Your task to perform on an android device: Search for the best rated mattress topper on Target. Image 0: 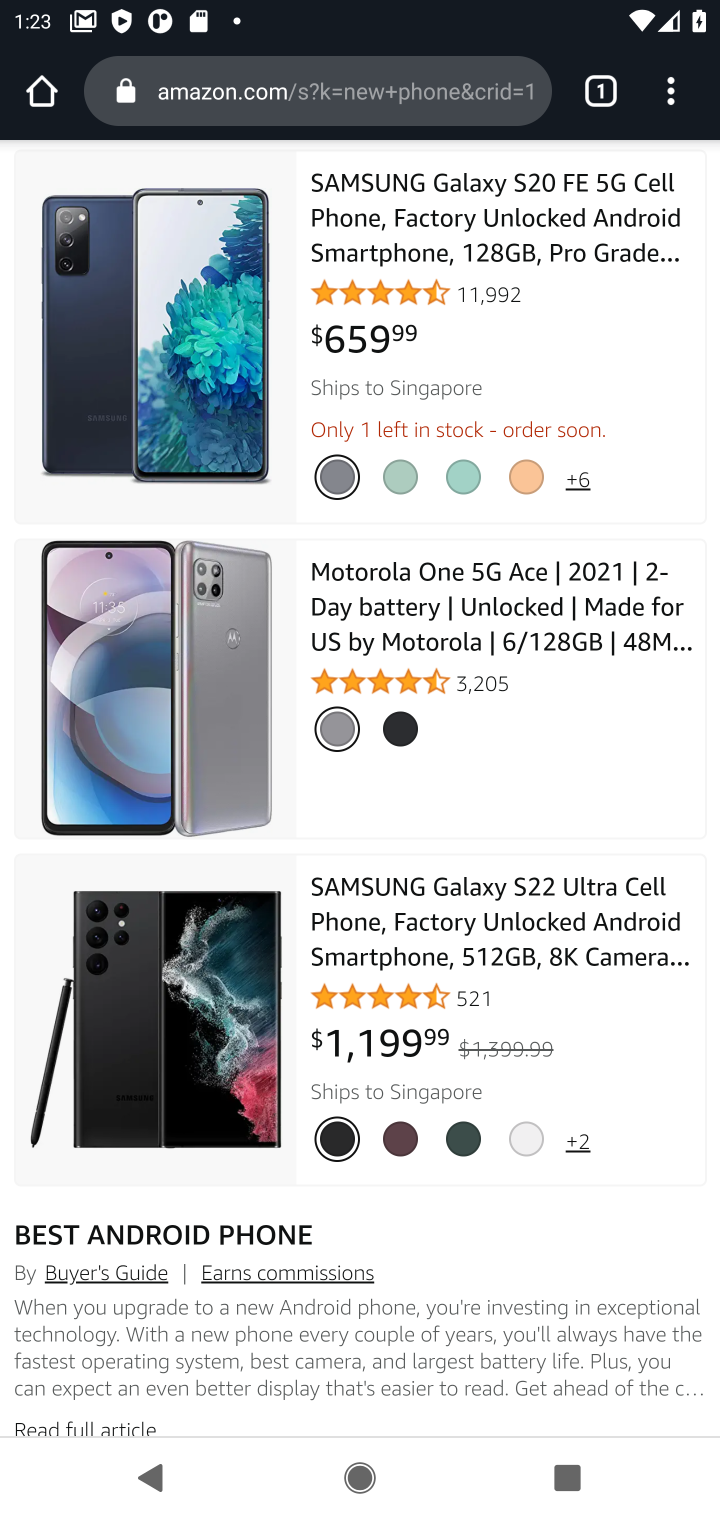
Step 0: click (371, 104)
Your task to perform on an android device: Search for the best rated mattress topper on Target. Image 1: 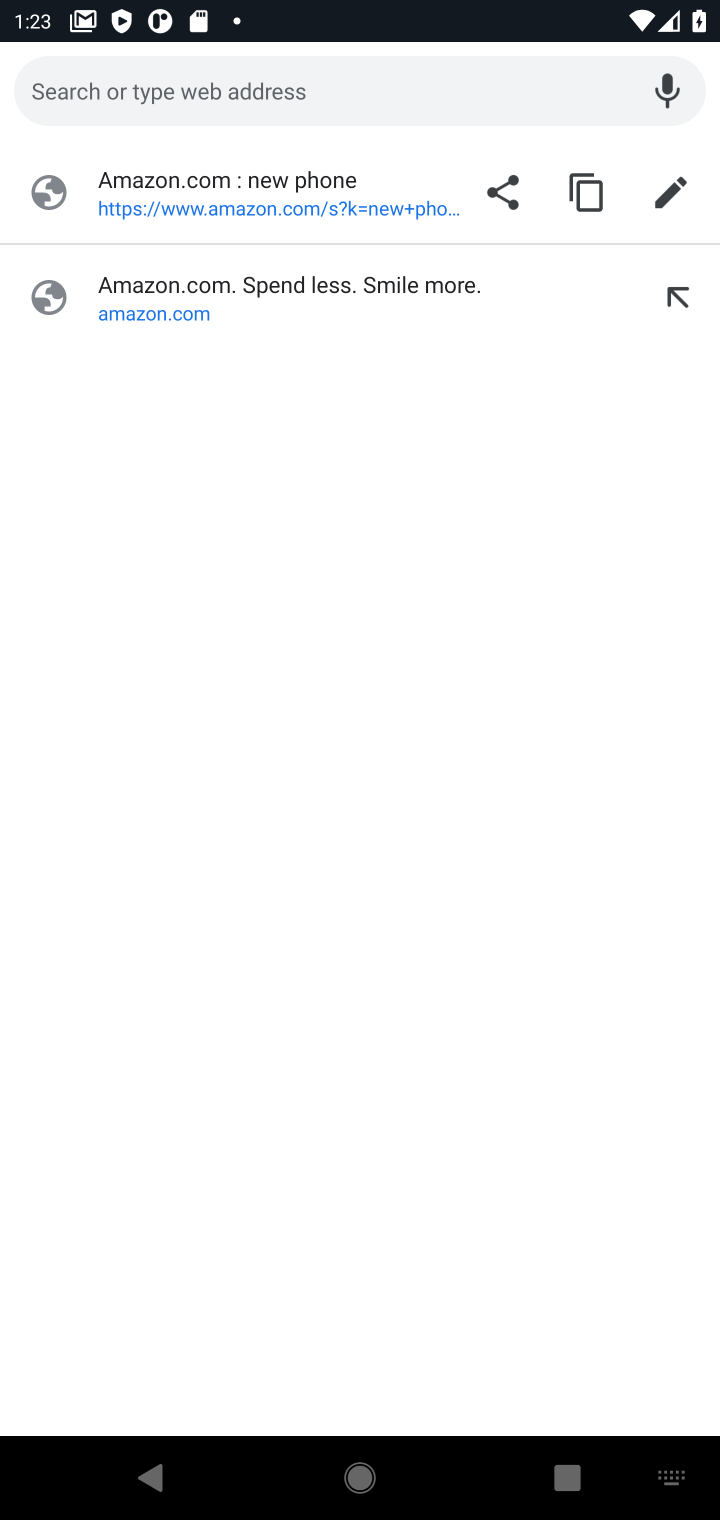
Step 1: type "Target"
Your task to perform on an android device: Search for the best rated mattress topper on Target. Image 2: 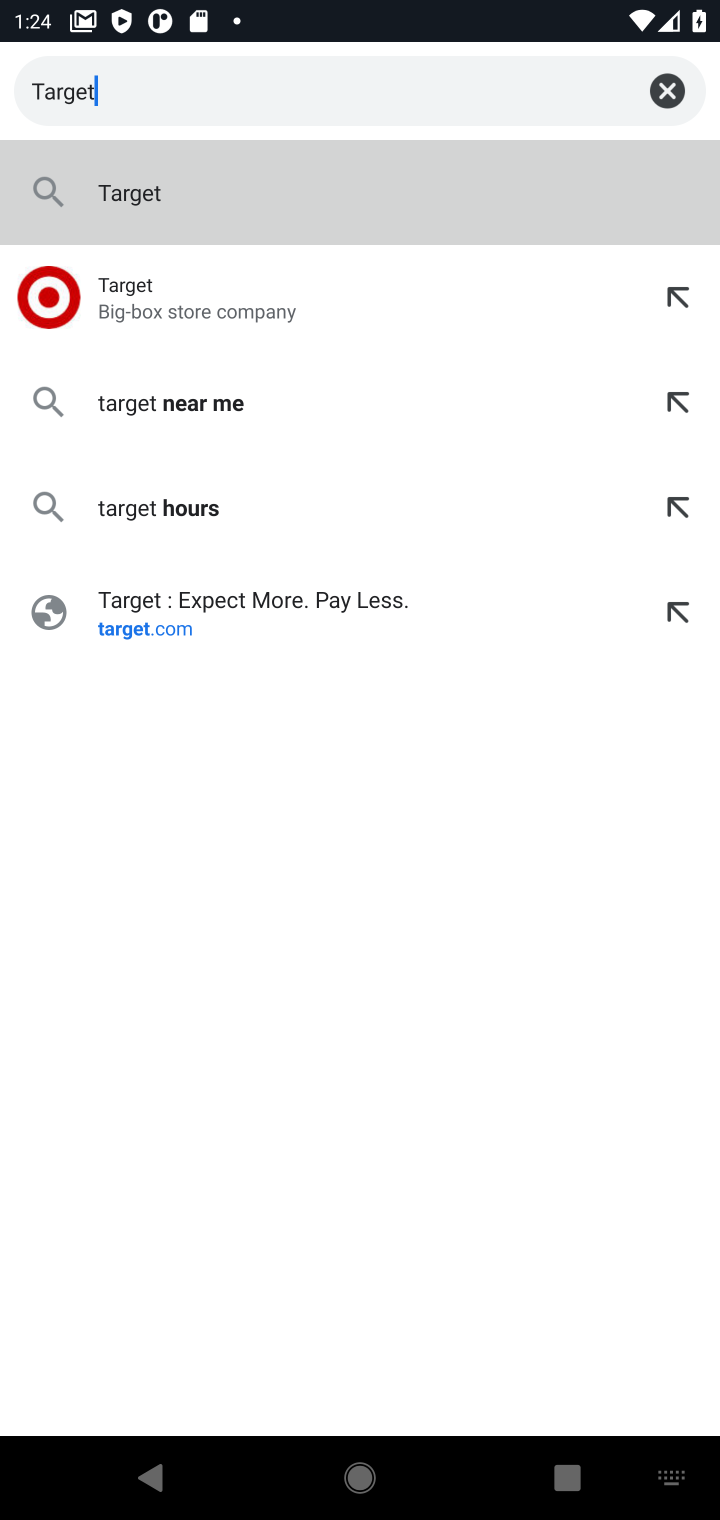
Step 2: press enter
Your task to perform on an android device: Search for the best rated mattress topper on Target. Image 3: 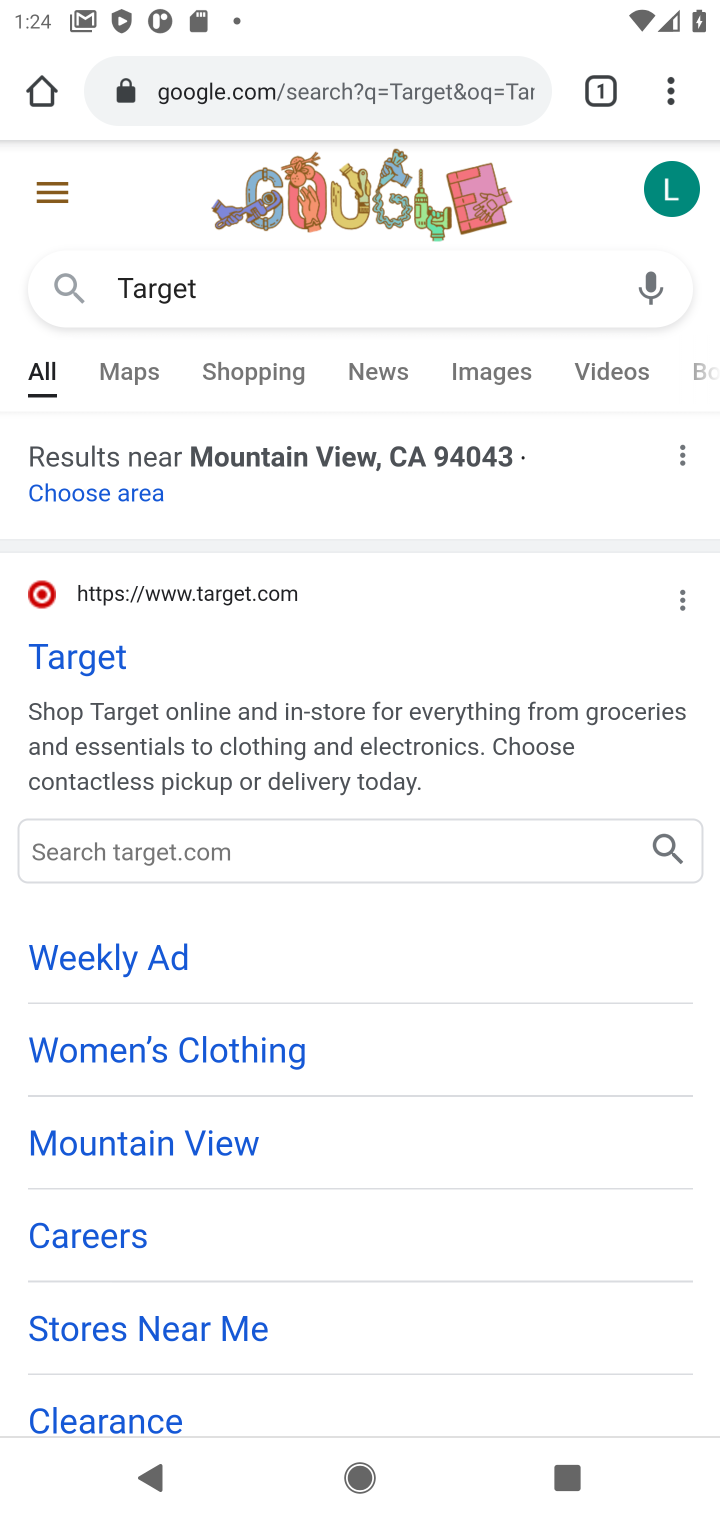
Step 3: click (74, 658)
Your task to perform on an android device: Search for the best rated mattress topper on Target. Image 4: 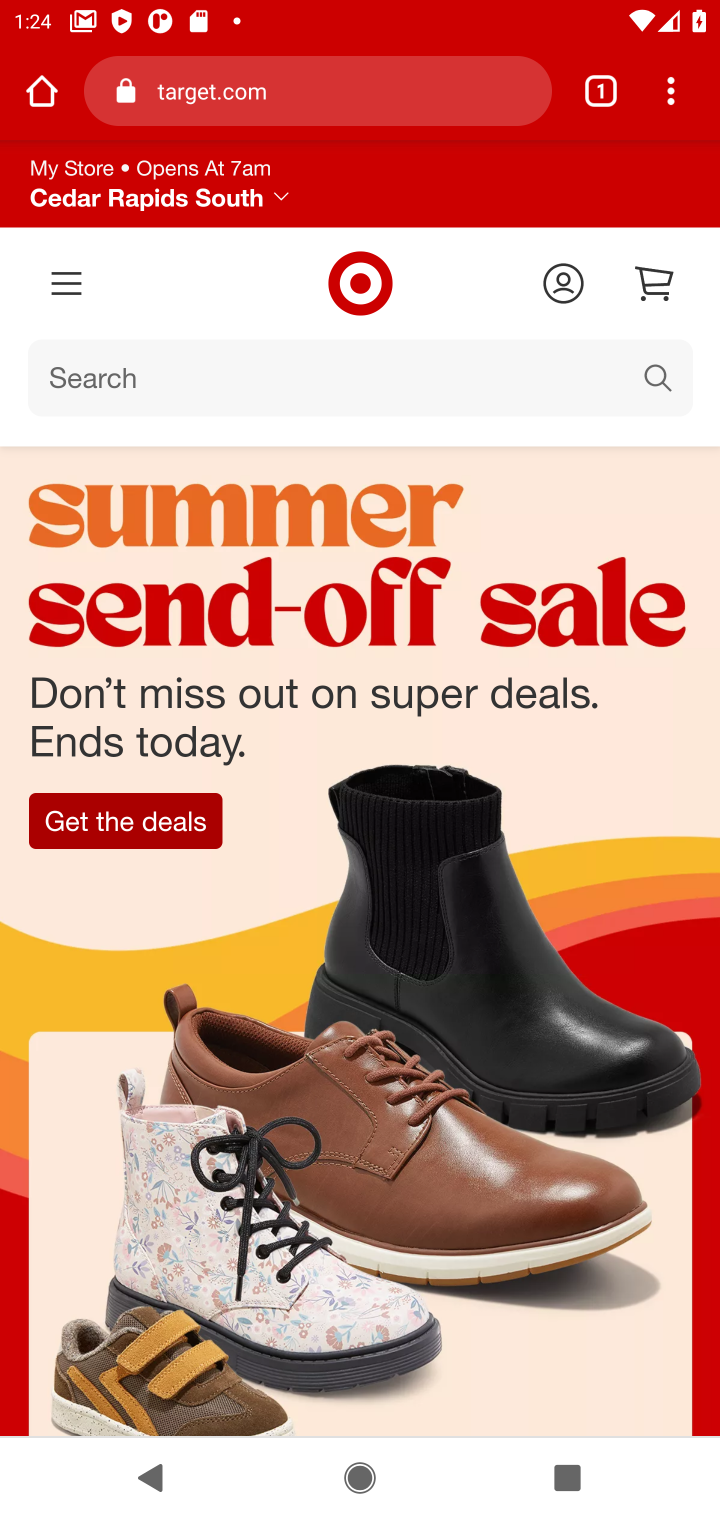
Step 4: click (117, 370)
Your task to perform on an android device: Search for the best rated mattress topper on Target. Image 5: 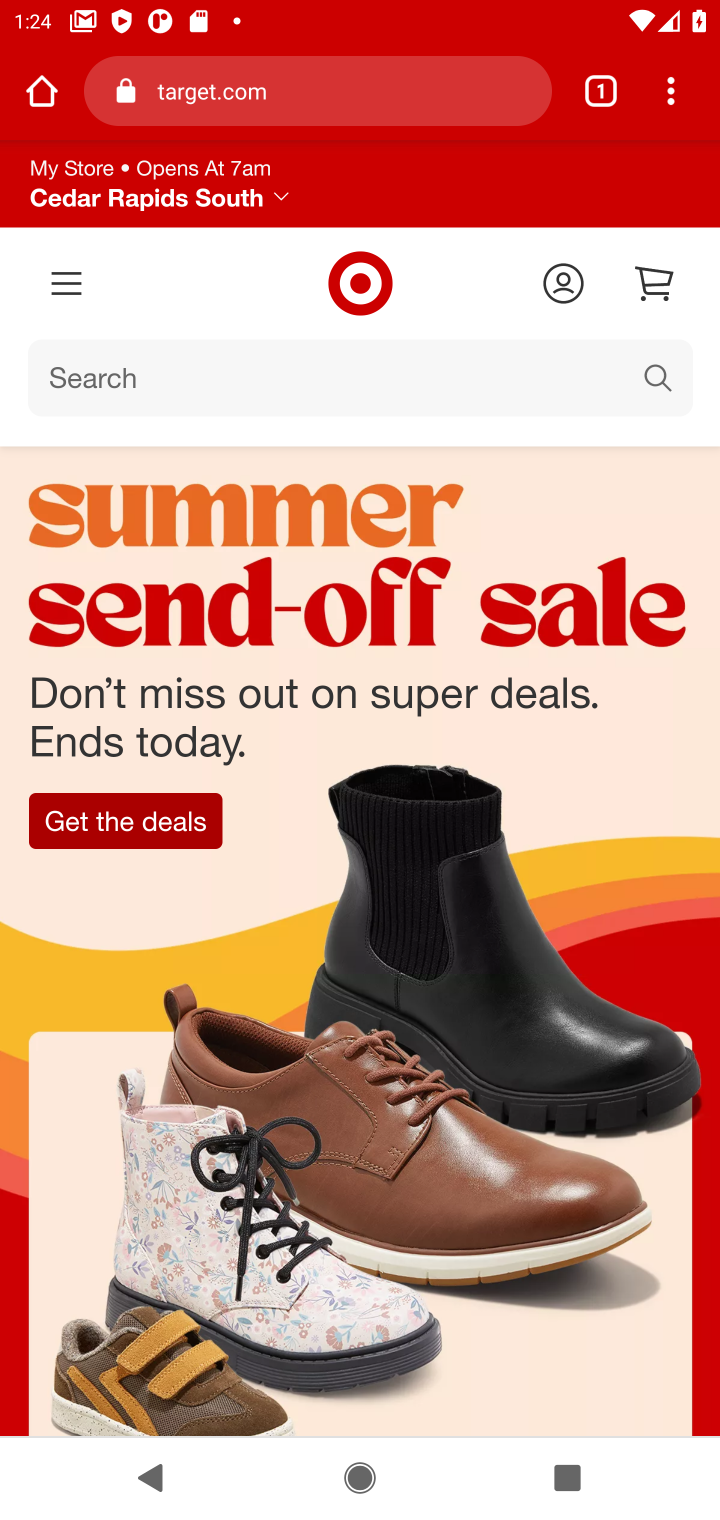
Step 5: click (146, 378)
Your task to perform on an android device: Search for the best rated mattress topper on Target. Image 6: 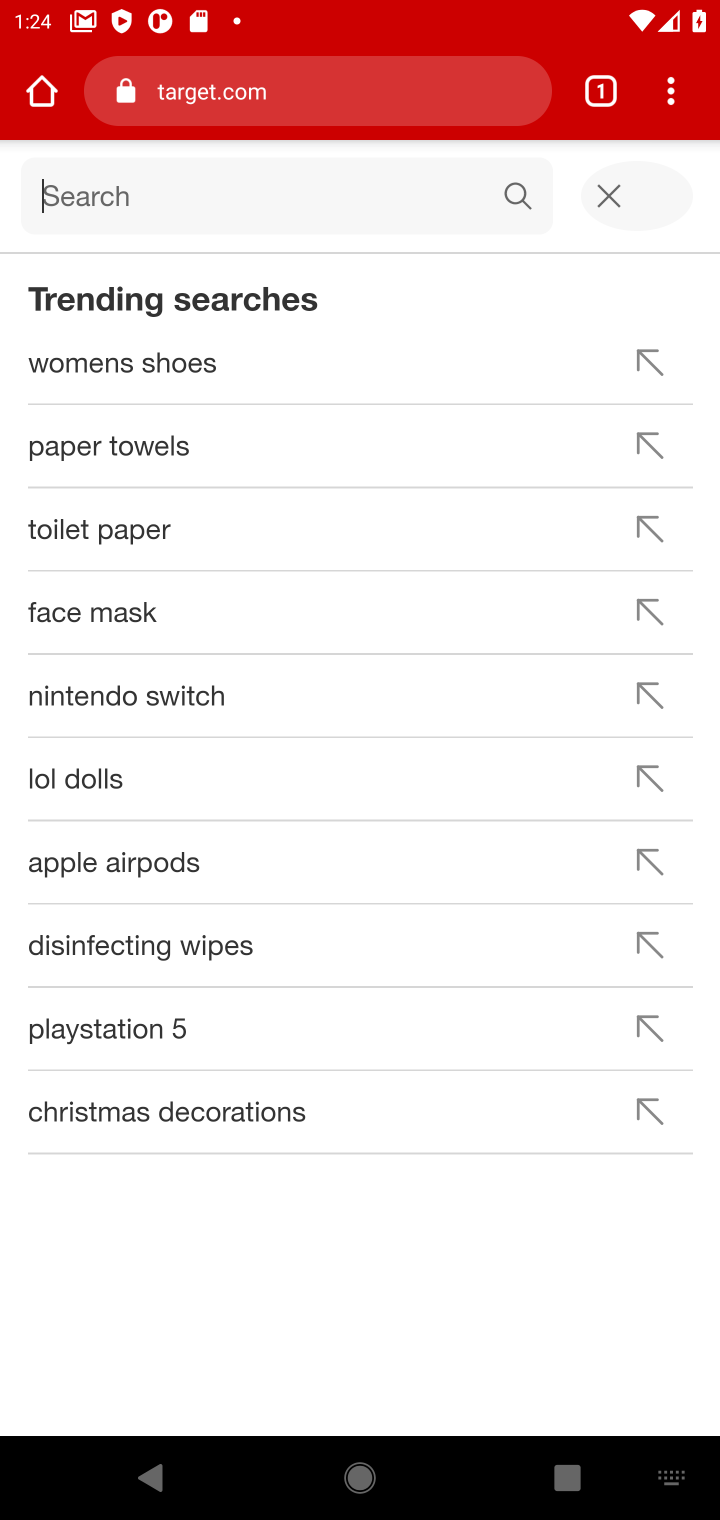
Step 6: type "mattress topper"
Your task to perform on an android device: Search for the best rated mattress topper on Target. Image 7: 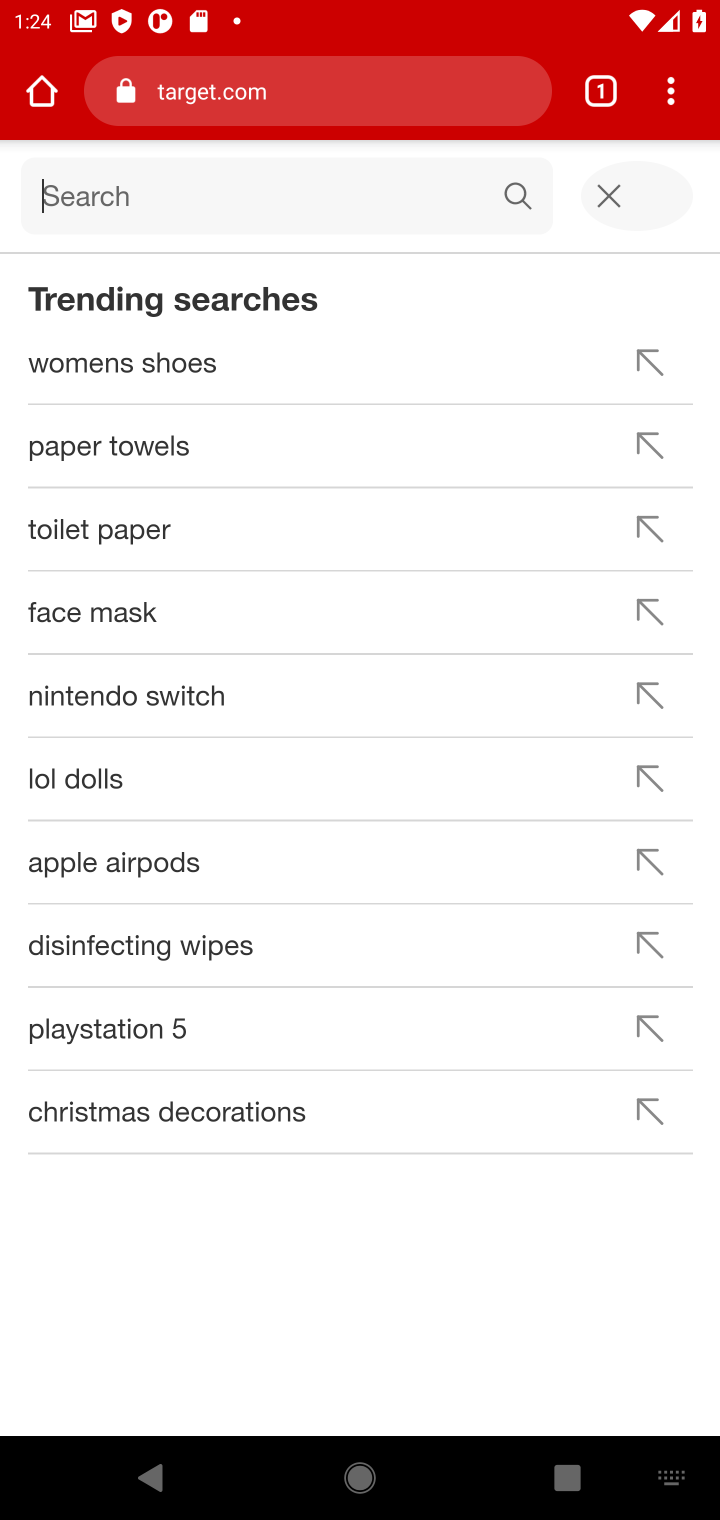
Step 7: press enter
Your task to perform on an android device: Search for the best rated mattress topper on Target. Image 8: 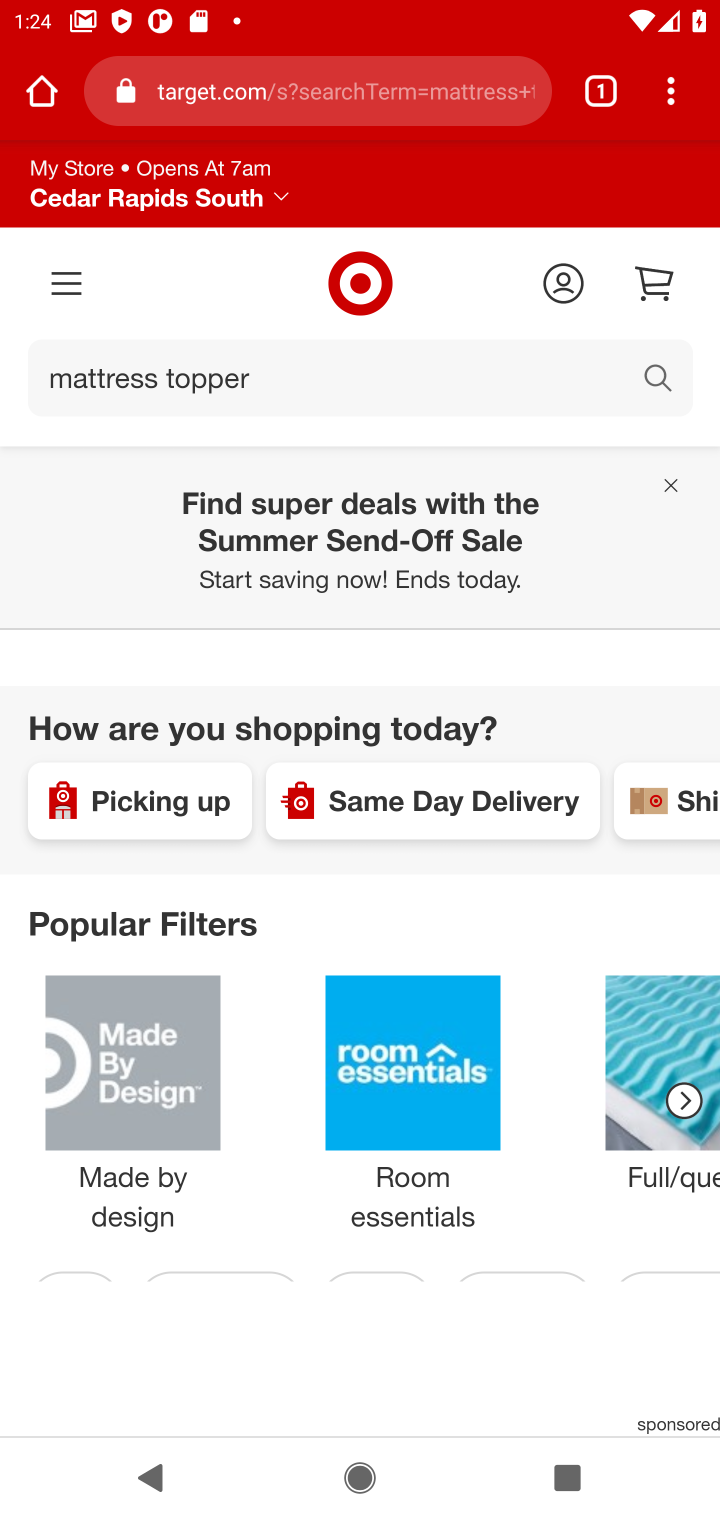
Step 8: click (526, 146)
Your task to perform on an android device: Search for the best rated mattress topper on Target. Image 9: 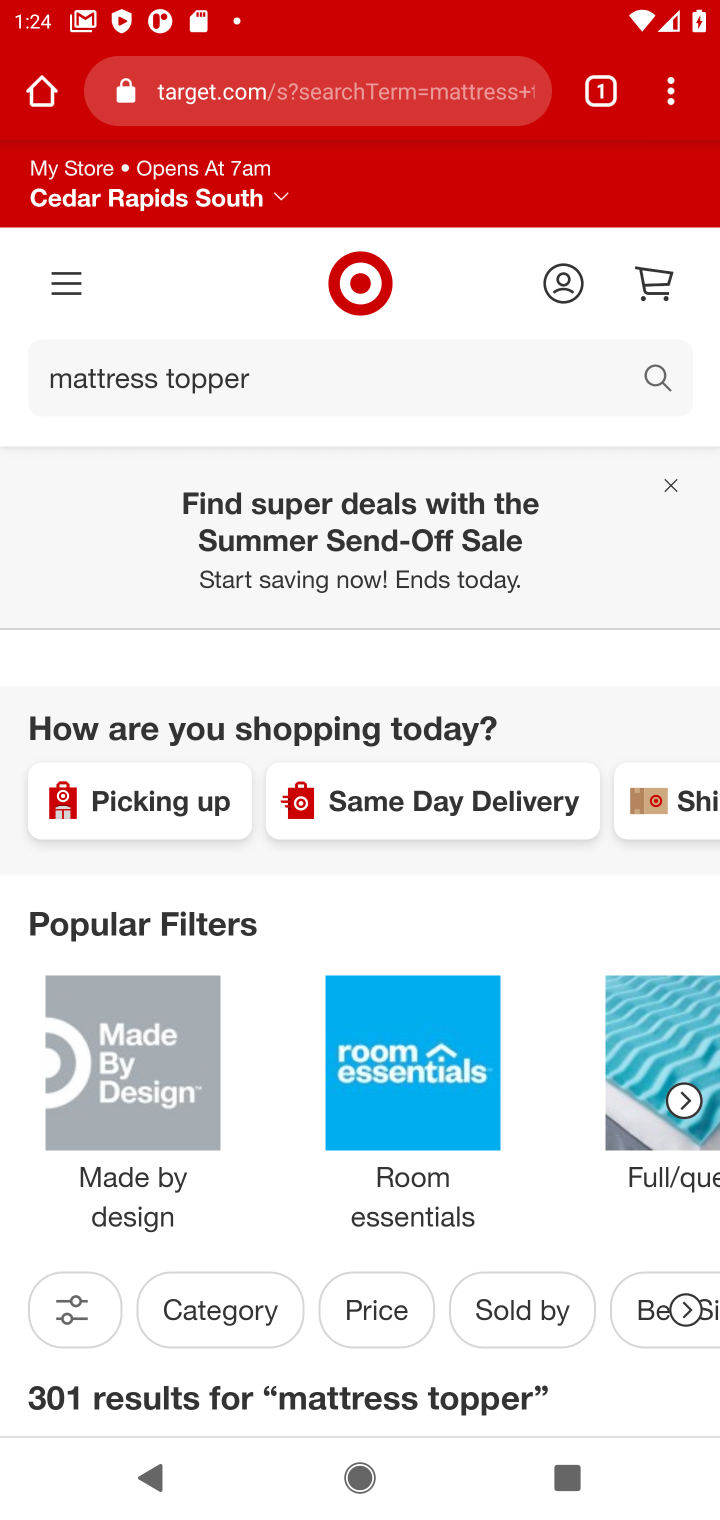
Step 9: drag from (407, 1059) to (605, 169)
Your task to perform on an android device: Search for the best rated mattress topper on Target. Image 10: 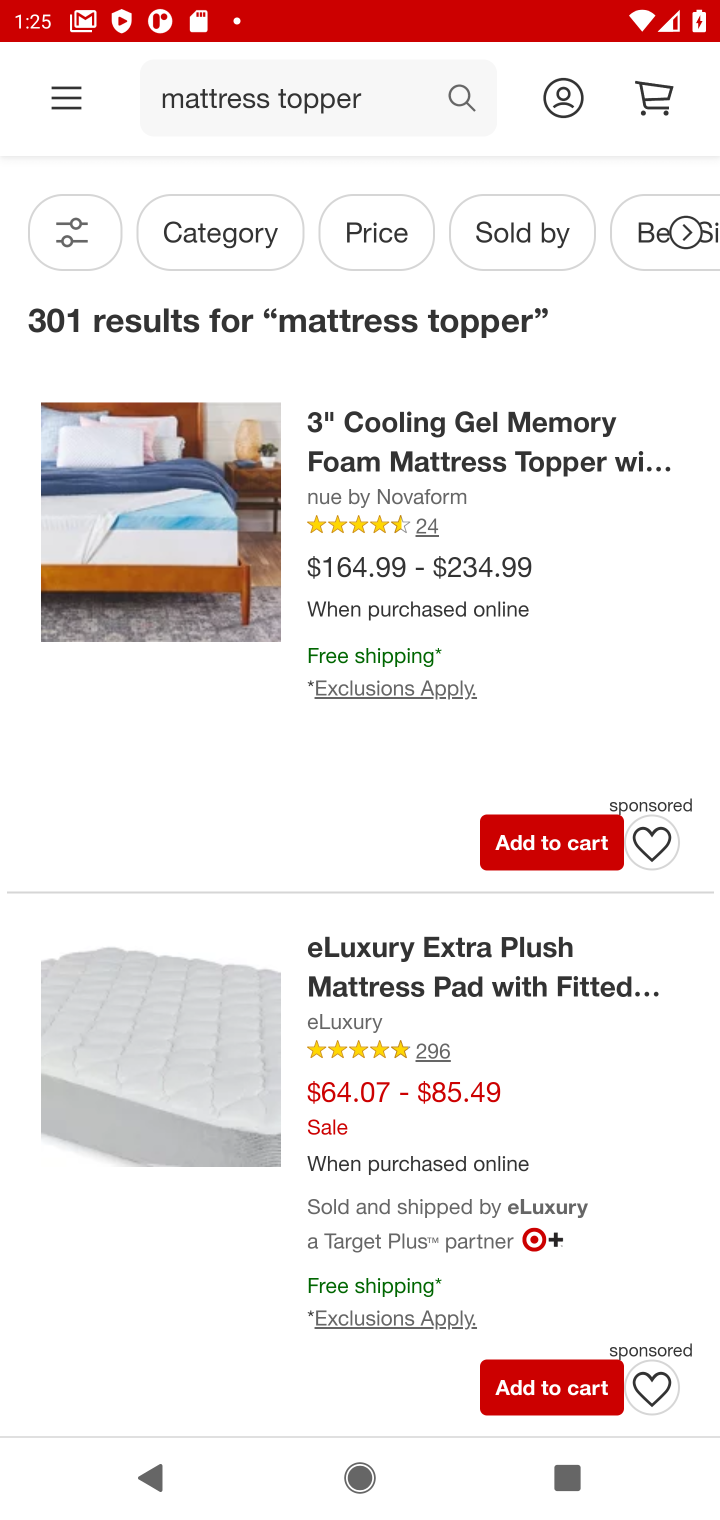
Step 10: drag from (495, 1024) to (637, 600)
Your task to perform on an android device: Search for the best rated mattress topper on Target. Image 11: 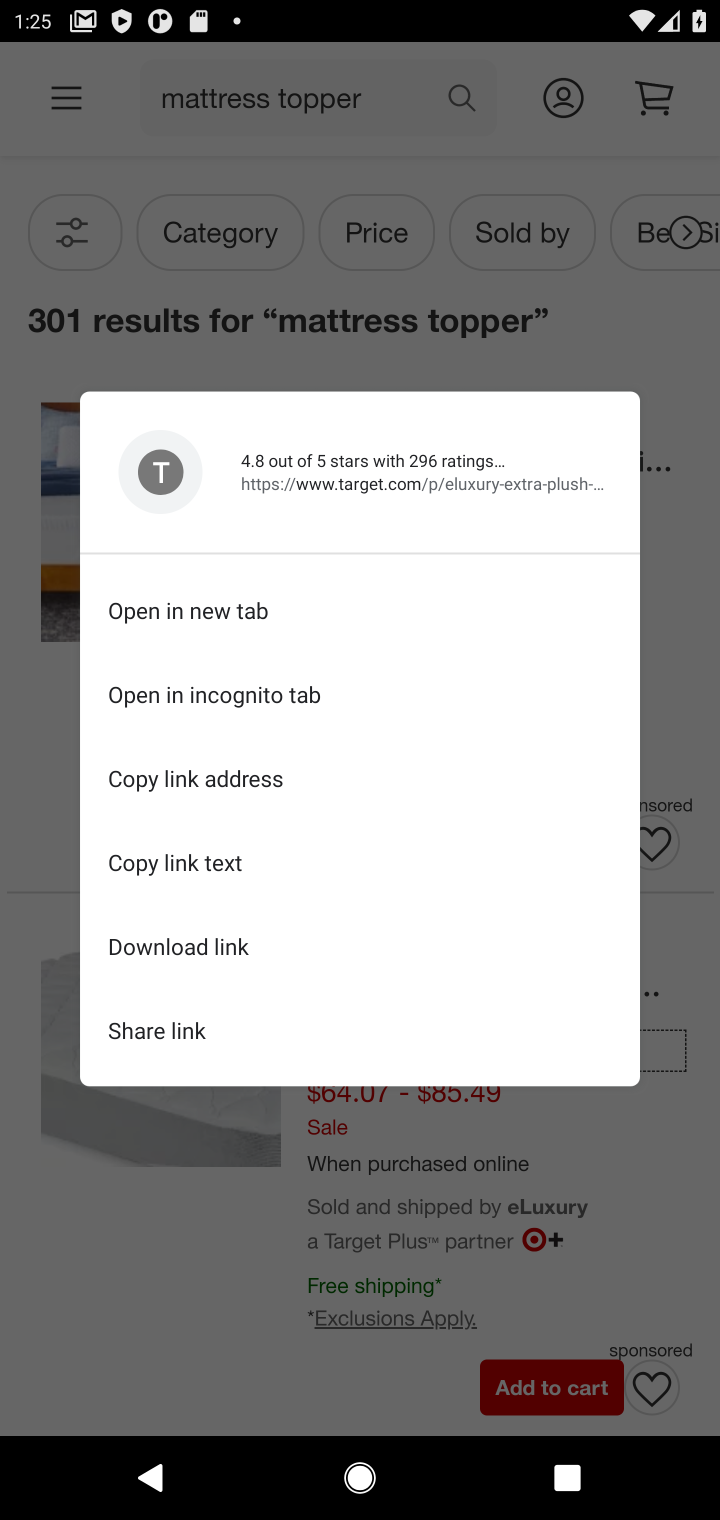
Step 11: click (686, 609)
Your task to perform on an android device: Search for the best rated mattress topper on Target. Image 12: 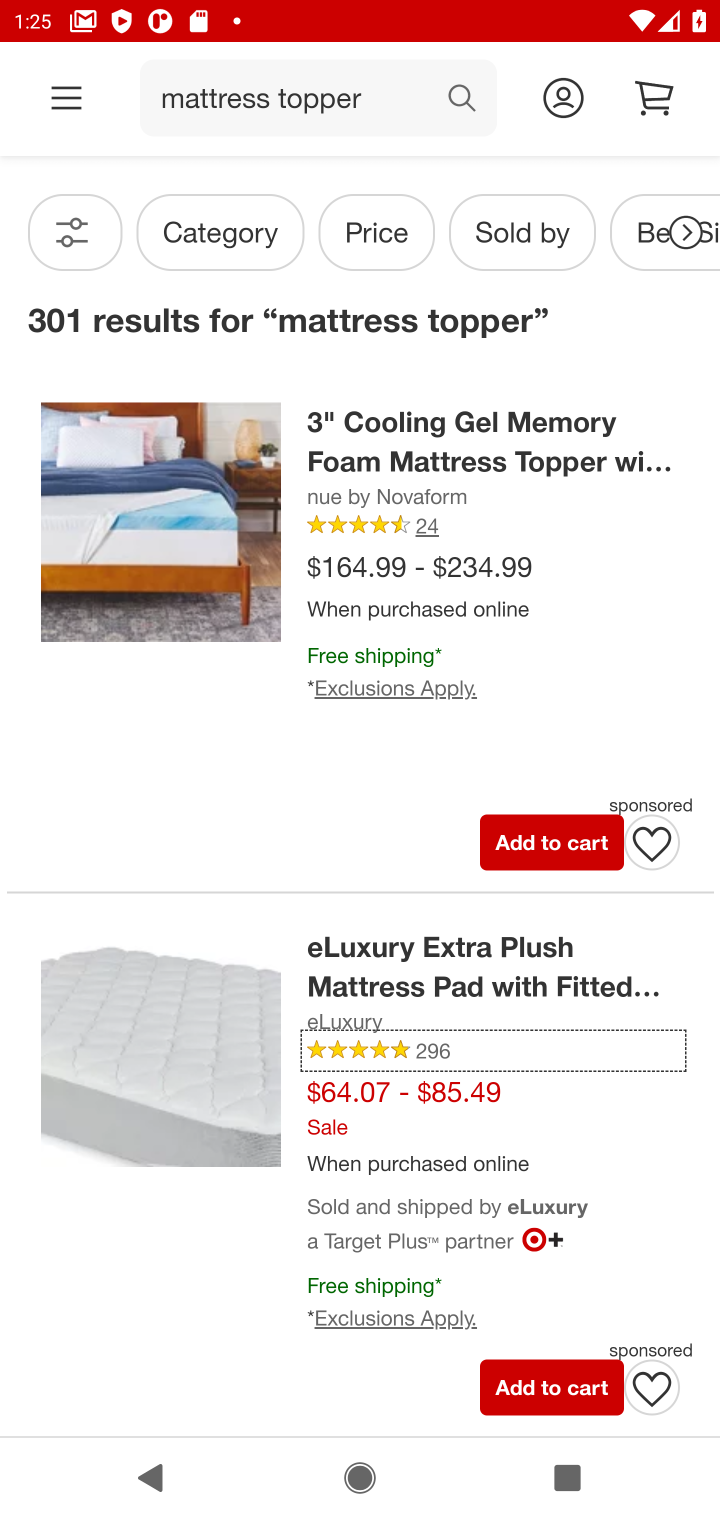
Step 12: task complete